Your task to perform on an android device: Clear all items from cart on amazon.com. Image 0: 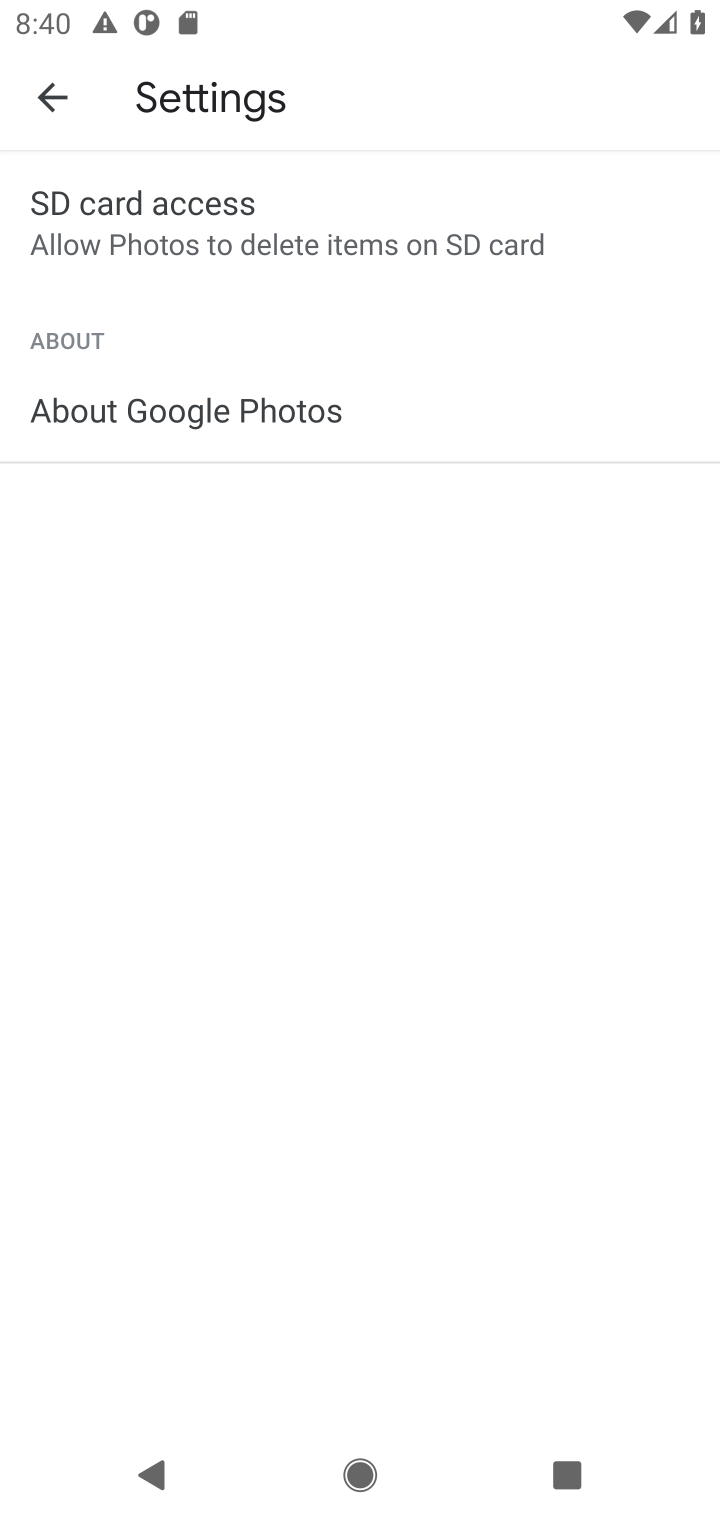
Step 0: press home button
Your task to perform on an android device: Clear all items from cart on amazon.com. Image 1: 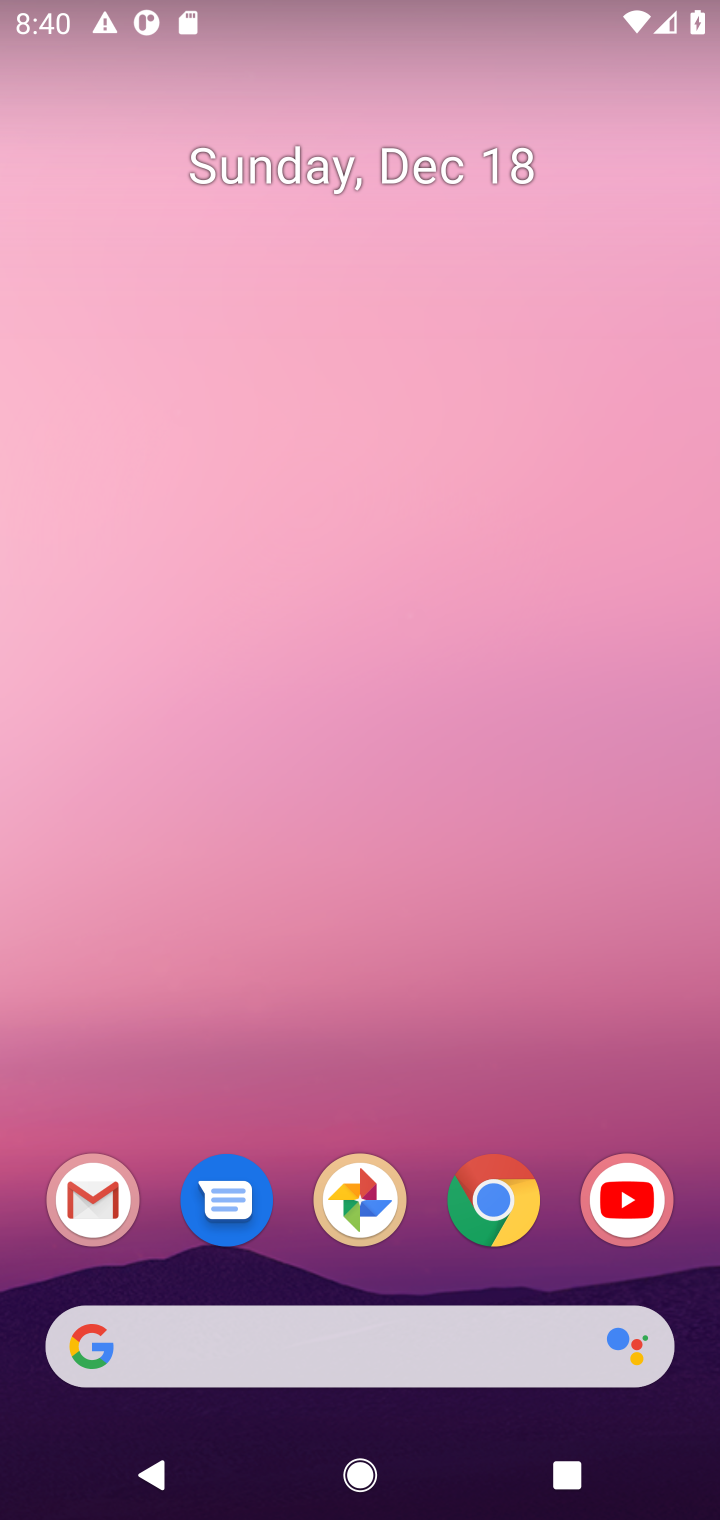
Step 1: click (502, 1221)
Your task to perform on an android device: Clear all items from cart on amazon.com. Image 2: 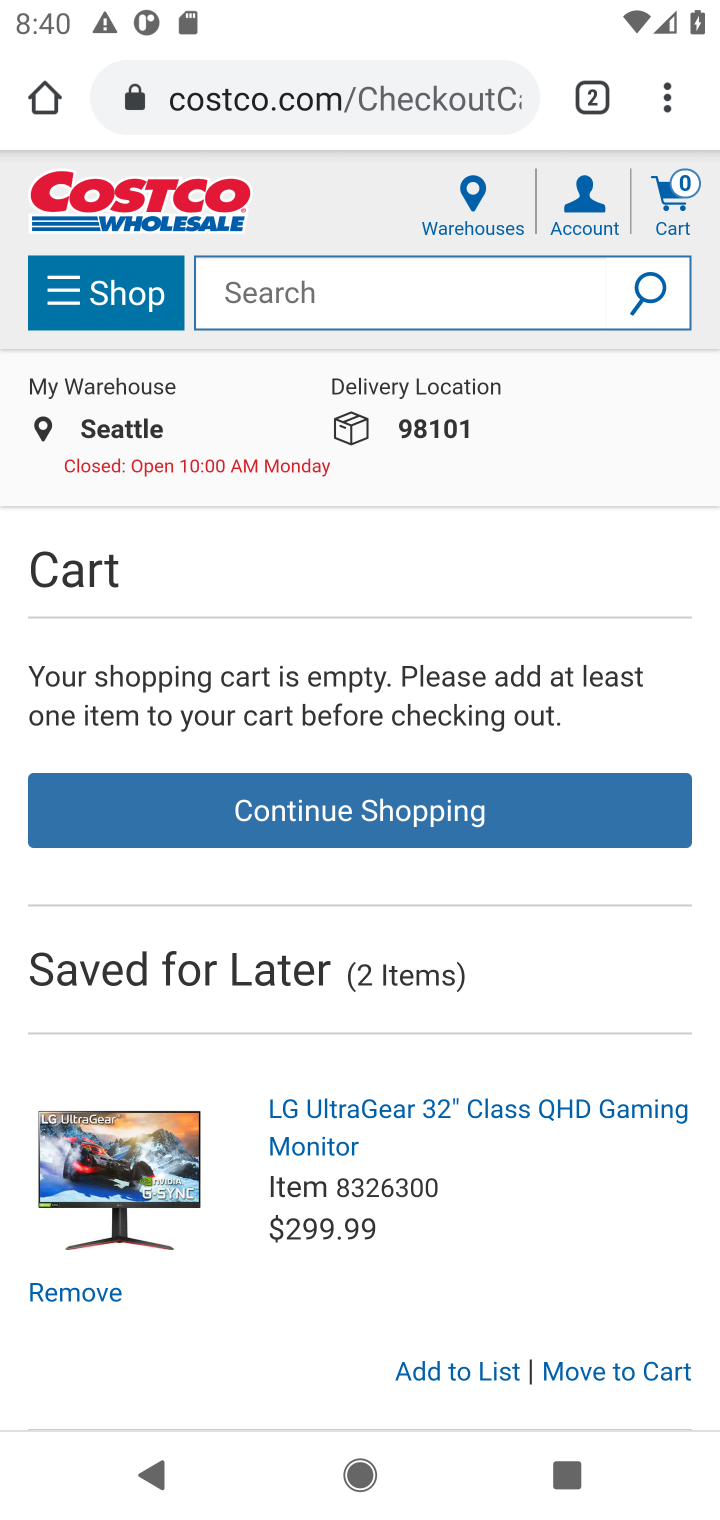
Step 2: click (333, 97)
Your task to perform on an android device: Clear all items from cart on amazon.com. Image 3: 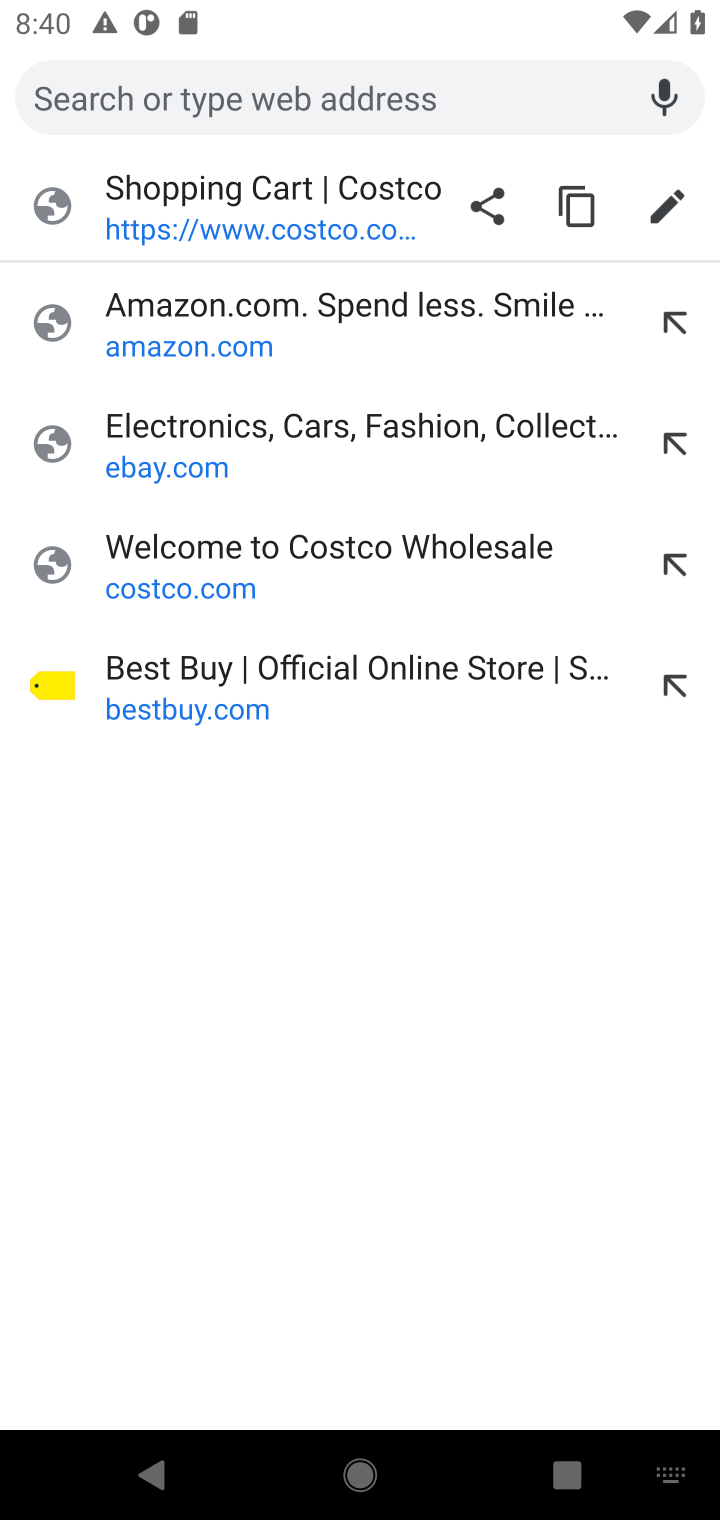
Step 3: click (183, 331)
Your task to perform on an android device: Clear all items from cart on amazon.com. Image 4: 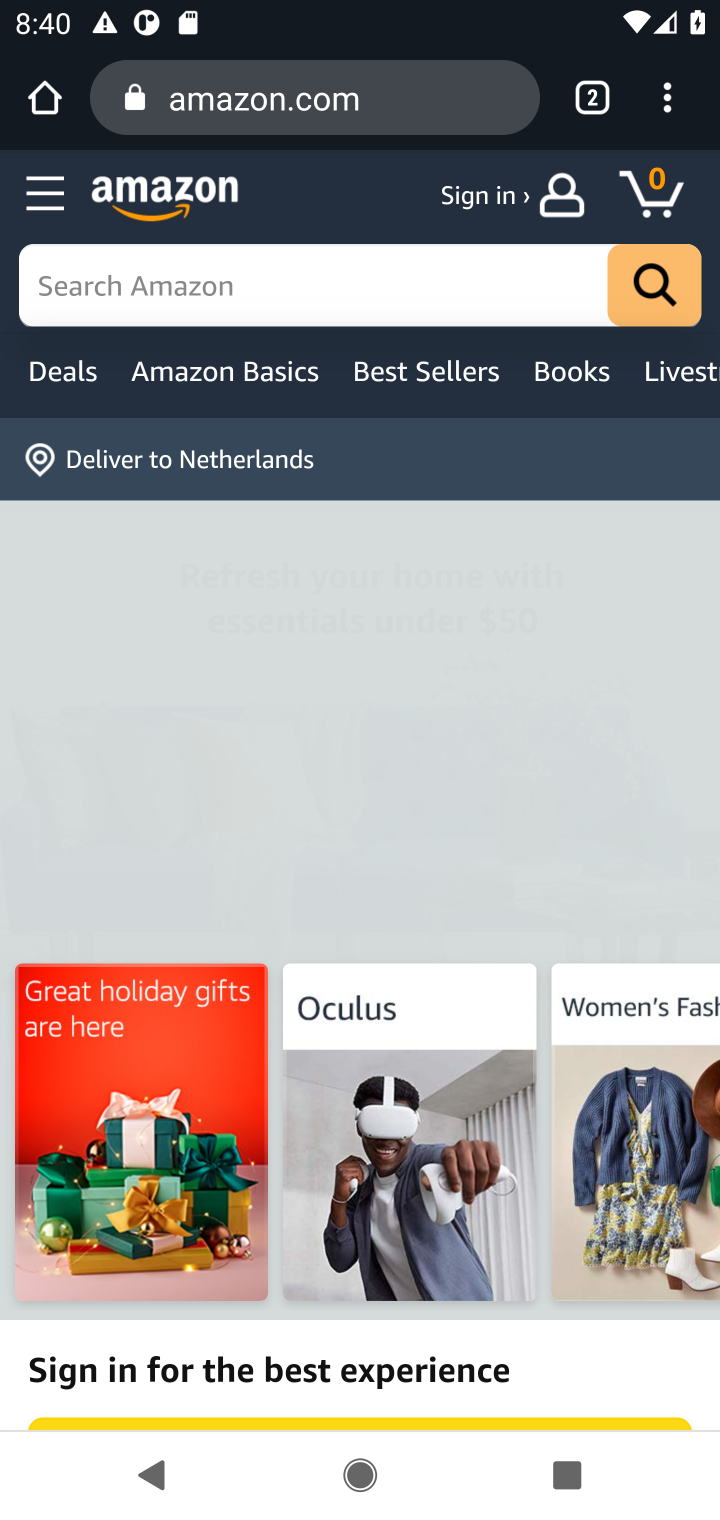
Step 4: click (653, 196)
Your task to perform on an android device: Clear all items from cart on amazon.com. Image 5: 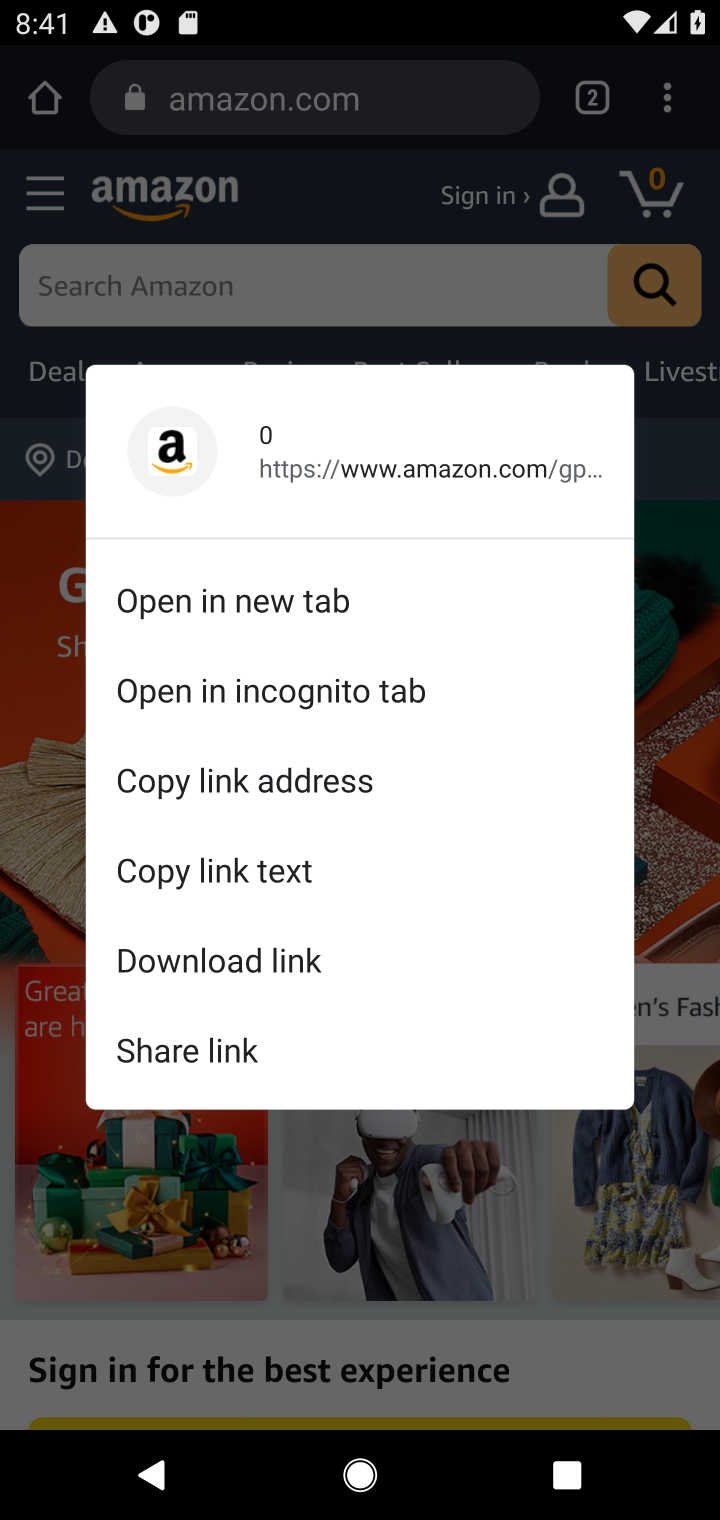
Step 5: click (653, 196)
Your task to perform on an android device: Clear all items from cart on amazon.com. Image 6: 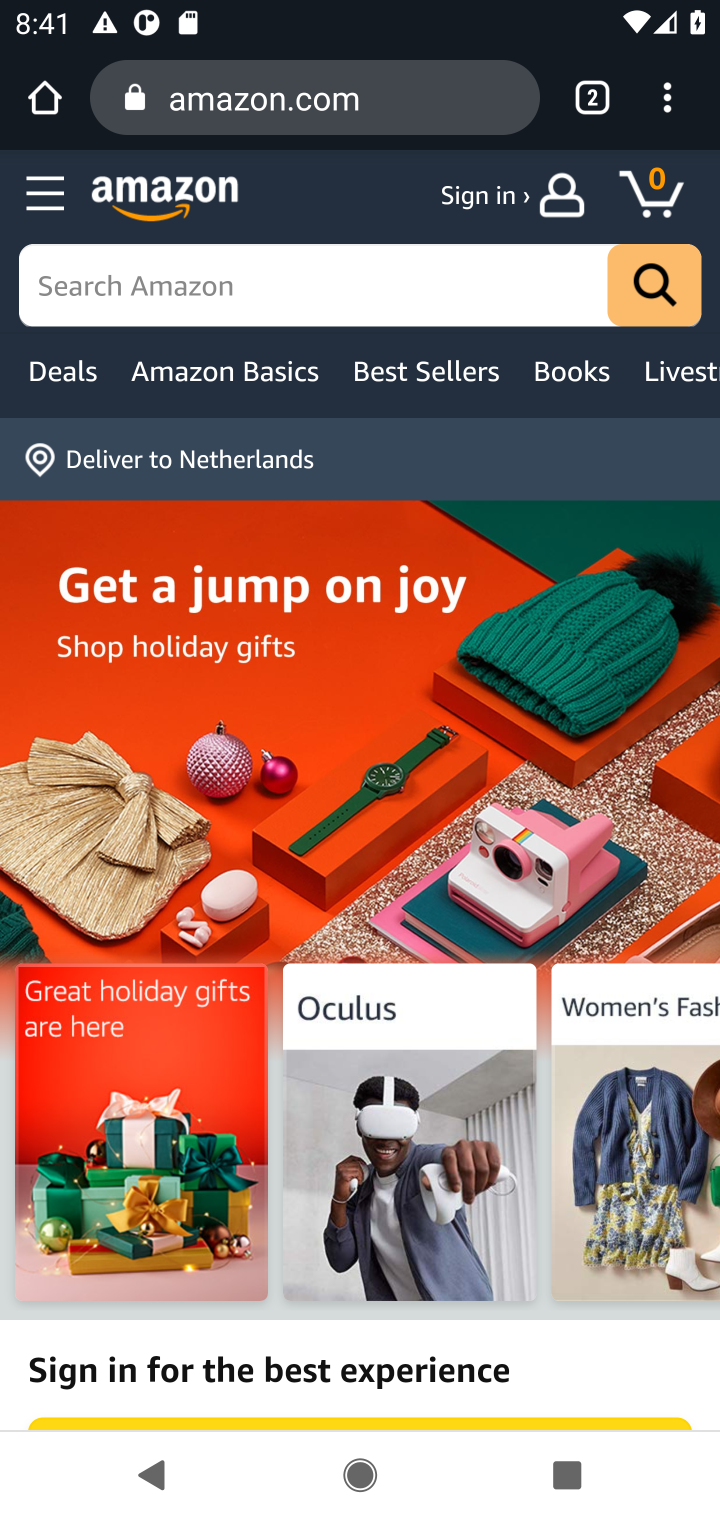
Step 6: click (651, 183)
Your task to perform on an android device: Clear all items from cart on amazon.com. Image 7: 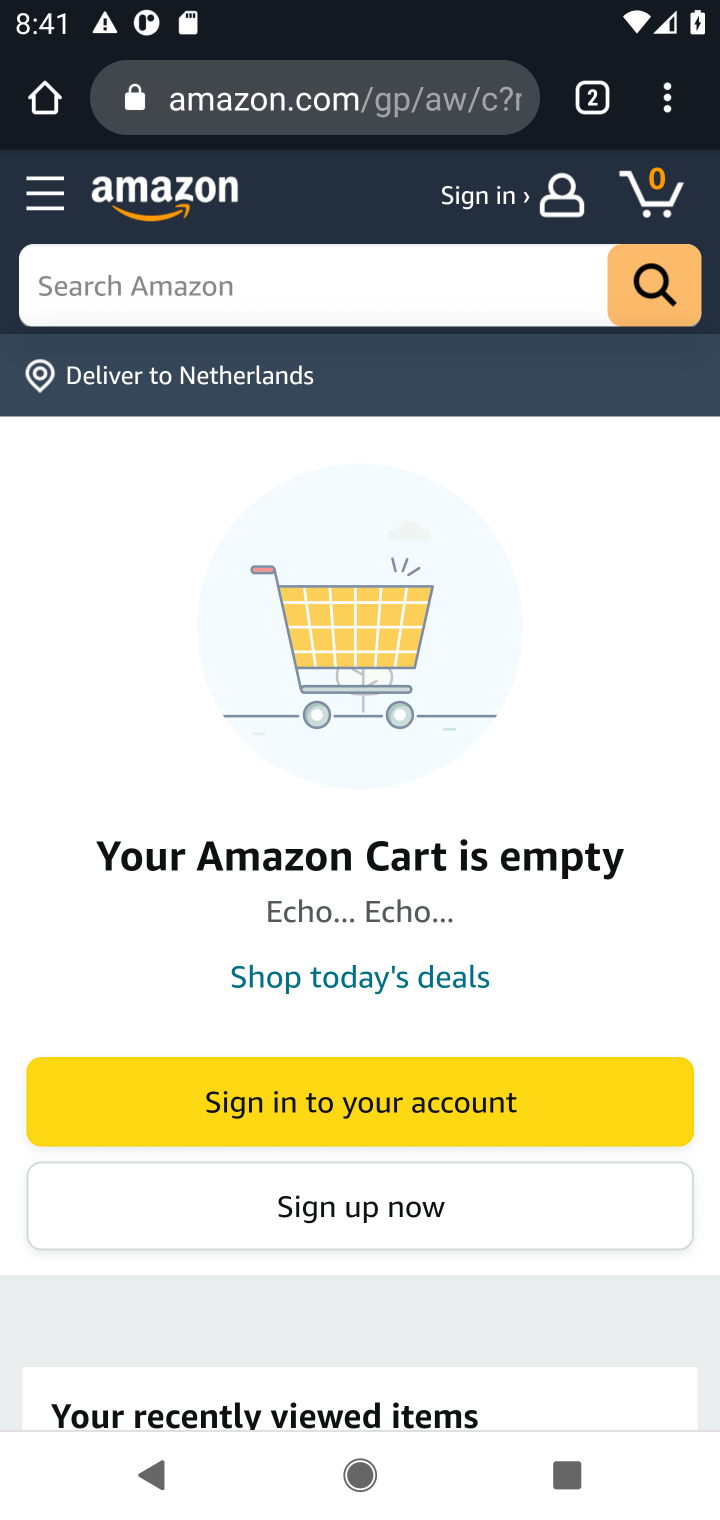
Step 7: task complete